Your task to perform on an android device: Go to internet settings Image 0: 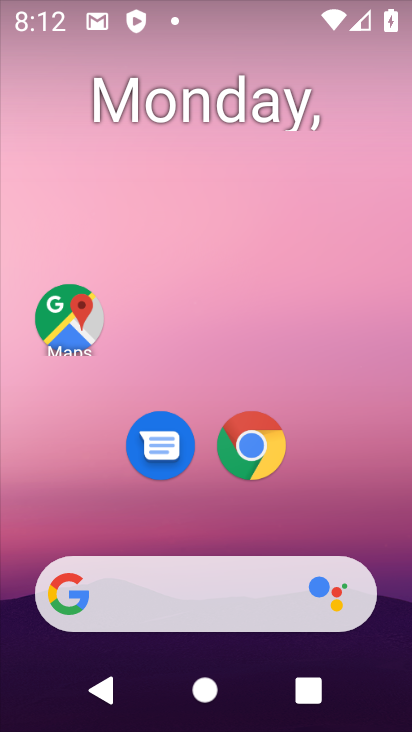
Step 0: drag from (242, 406) to (226, 4)
Your task to perform on an android device: Go to internet settings Image 1: 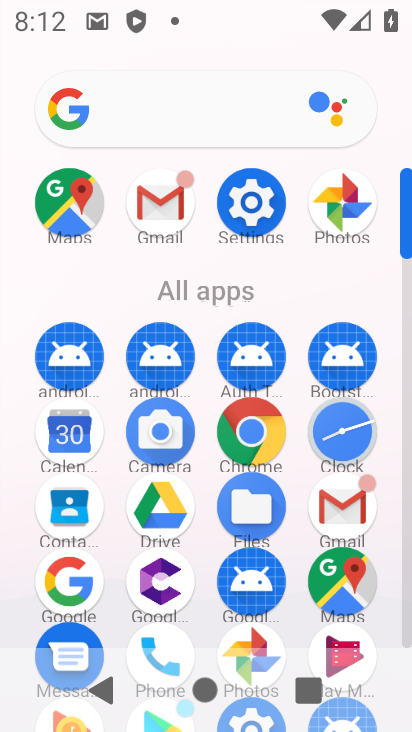
Step 1: click (246, 161)
Your task to perform on an android device: Go to internet settings Image 2: 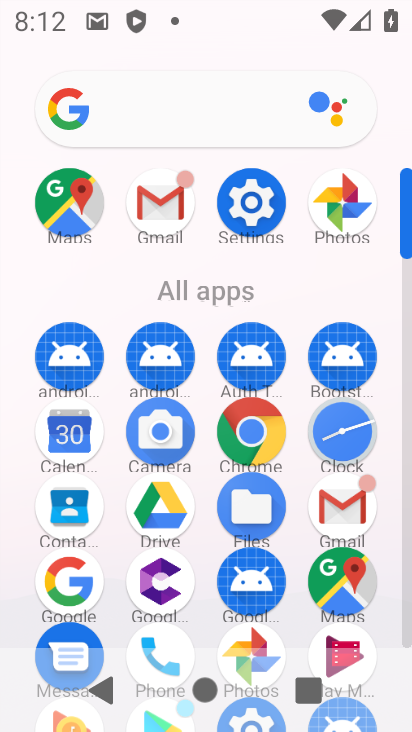
Step 2: click (251, 209)
Your task to perform on an android device: Go to internet settings Image 3: 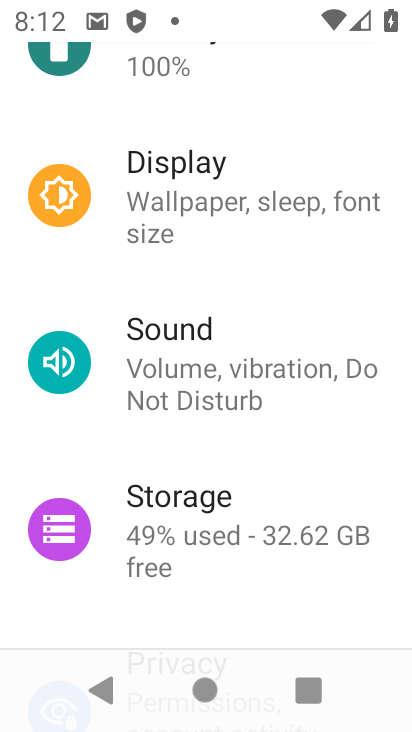
Step 3: drag from (327, 239) to (313, 530)
Your task to perform on an android device: Go to internet settings Image 4: 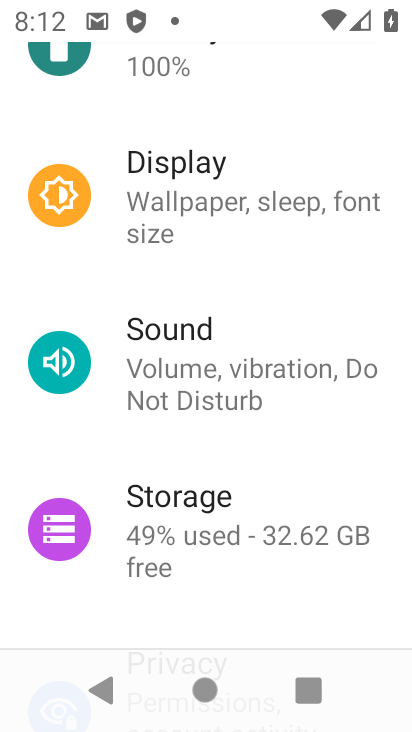
Step 4: drag from (296, 171) to (194, 682)
Your task to perform on an android device: Go to internet settings Image 5: 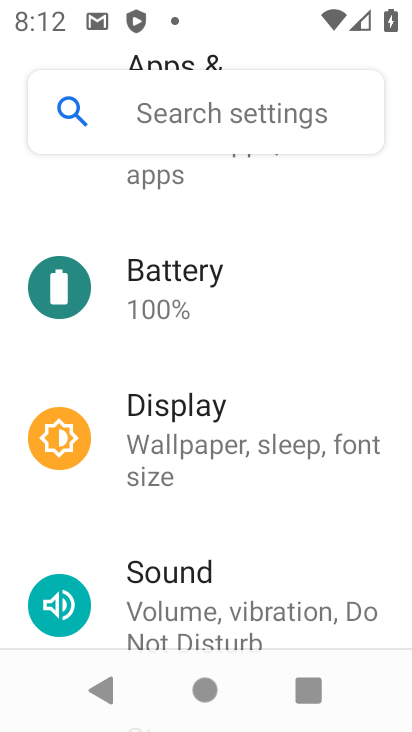
Step 5: drag from (268, 290) to (251, 719)
Your task to perform on an android device: Go to internet settings Image 6: 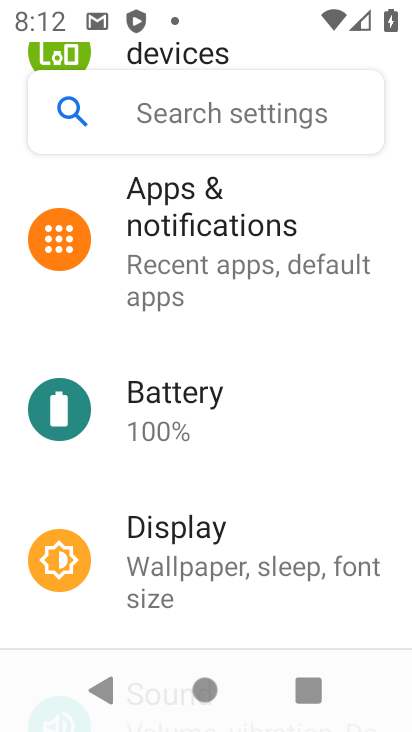
Step 6: drag from (363, 239) to (307, 694)
Your task to perform on an android device: Go to internet settings Image 7: 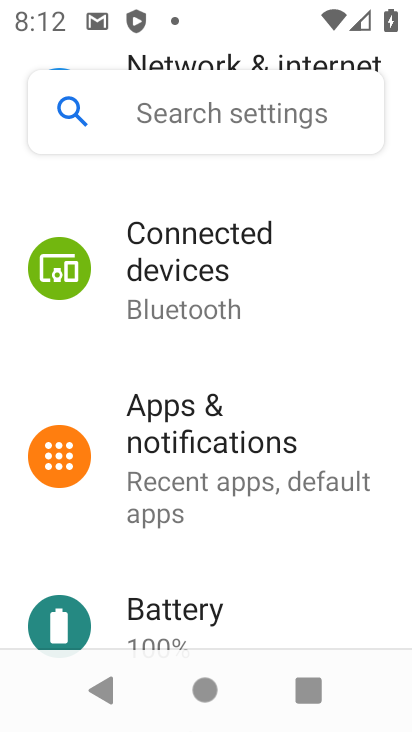
Step 7: drag from (301, 232) to (347, 629)
Your task to perform on an android device: Go to internet settings Image 8: 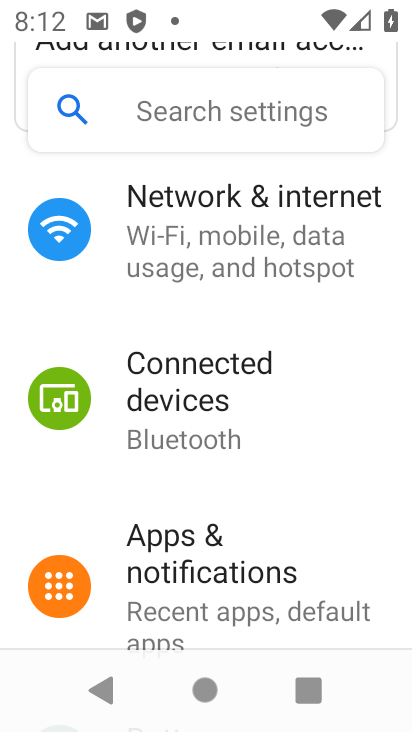
Step 8: click (289, 217)
Your task to perform on an android device: Go to internet settings Image 9: 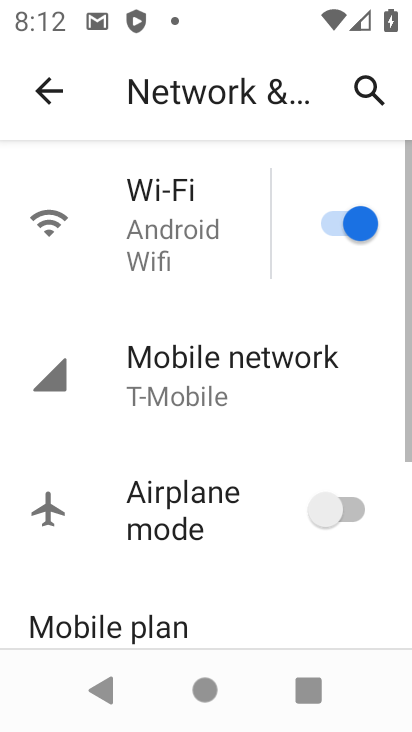
Step 9: task complete